Your task to perform on an android device: Show me popular videos on Youtube Image 0: 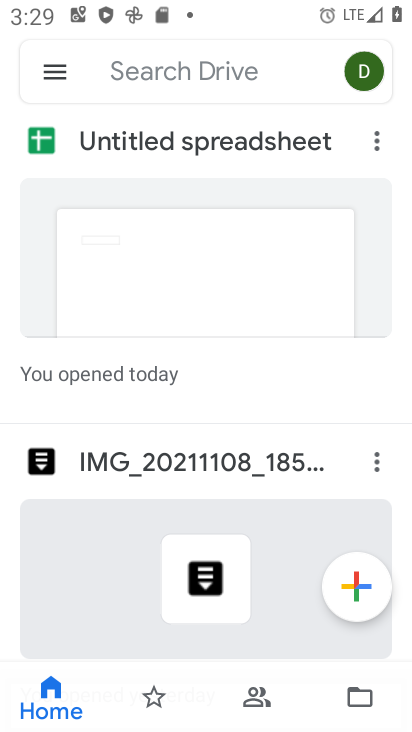
Step 0: press home button
Your task to perform on an android device: Show me popular videos on Youtube Image 1: 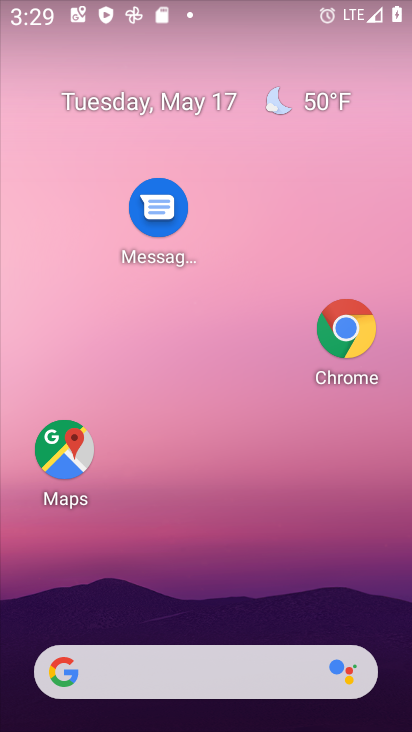
Step 1: drag from (307, 560) to (268, 123)
Your task to perform on an android device: Show me popular videos on Youtube Image 2: 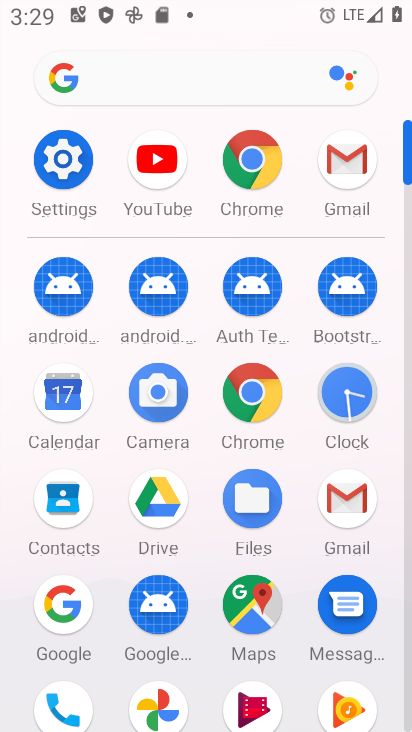
Step 2: click (155, 210)
Your task to perform on an android device: Show me popular videos on Youtube Image 3: 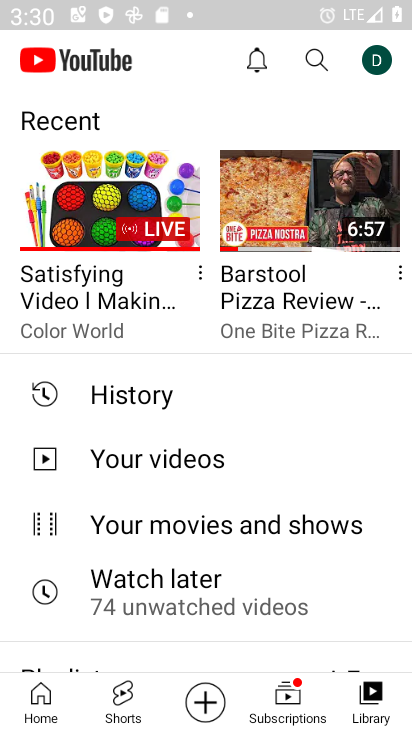
Step 3: click (17, 723)
Your task to perform on an android device: Show me popular videos on Youtube Image 4: 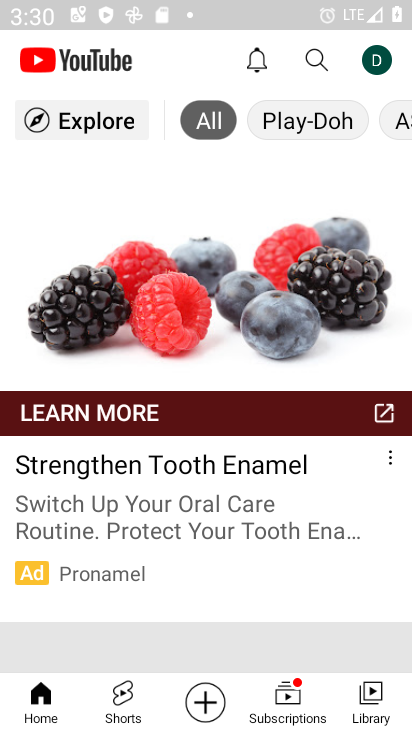
Step 4: task complete